Your task to perform on an android device: Open calendar and show me the third week of next month Image 0: 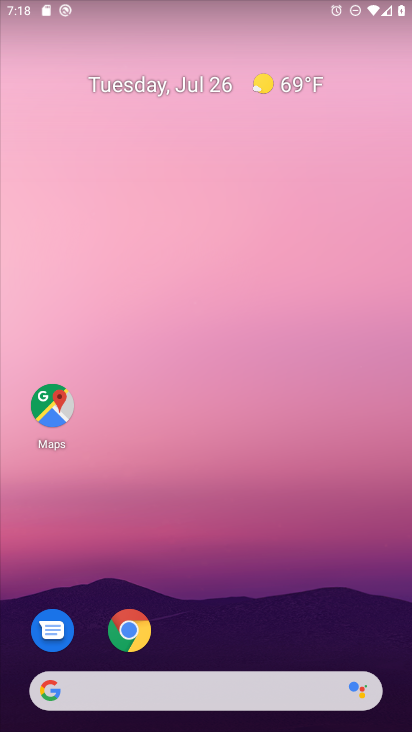
Step 0: drag from (251, 591) to (248, 142)
Your task to perform on an android device: Open calendar and show me the third week of next month Image 1: 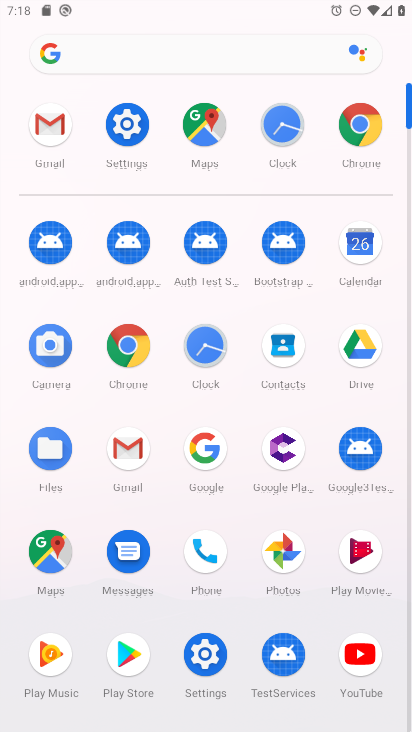
Step 1: click (364, 251)
Your task to perform on an android device: Open calendar and show me the third week of next month Image 2: 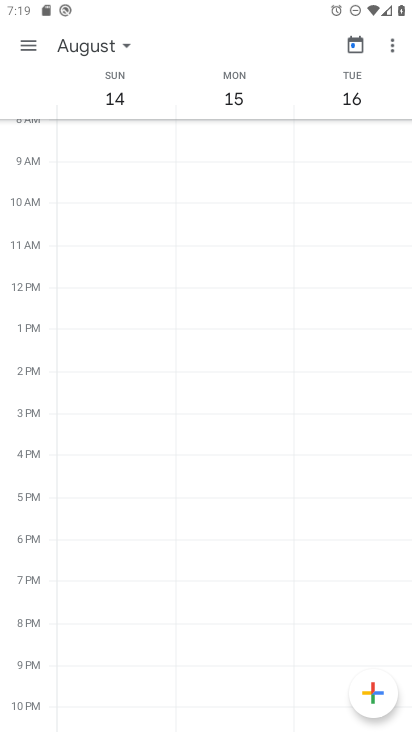
Step 2: click (47, 44)
Your task to perform on an android device: Open calendar and show me the third week of next month Image 3: 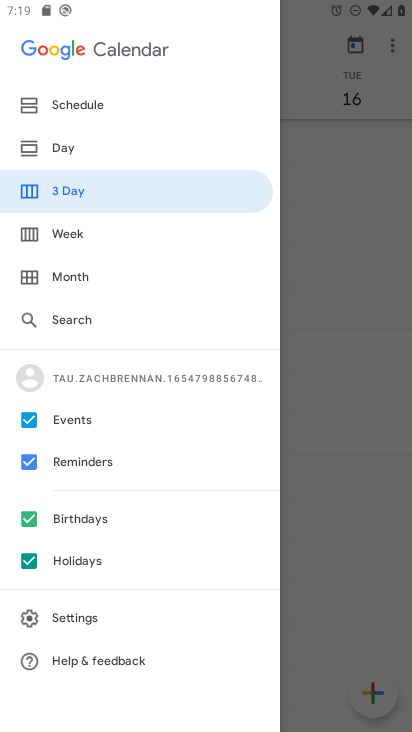
Step 3: click (118, 245)
Your task to perform on an android device: Open calendar and show me the third week of next month Image 4: 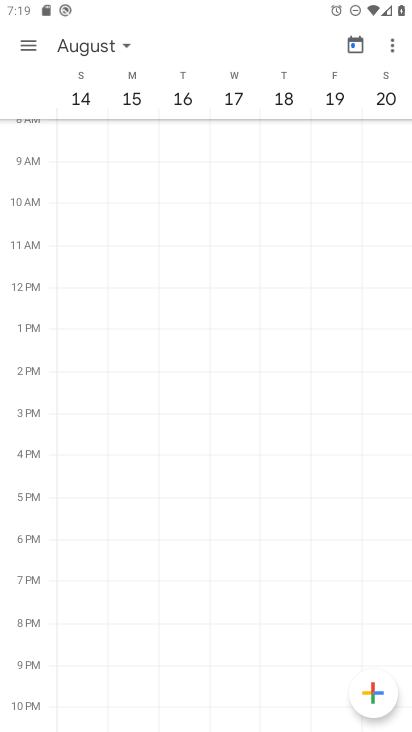
Step 4: click (121, 54)
Your task to perform on an android device: Open calendar and show me the third week of next month Image 5: 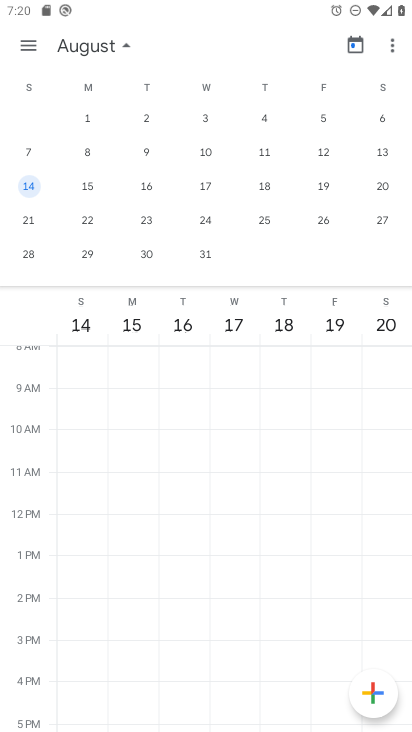
Step 5: click (114, 49)
Your task to perform on an android device: Open calendar and show me the third week of next month Image 6: 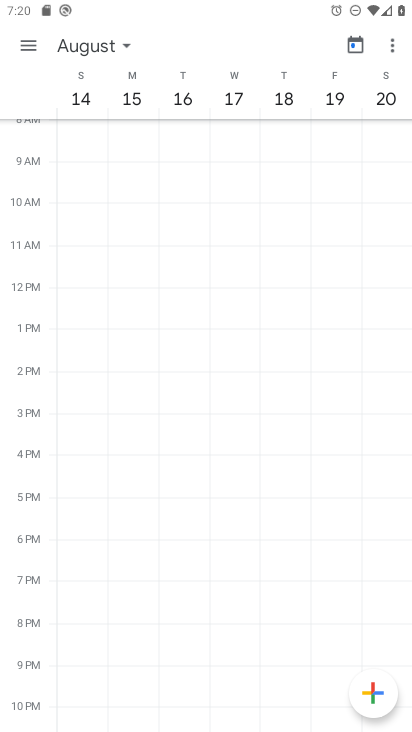
Step 6: task complete